Your task to perform on an android device: turn pop-ups on in chrome Image 0: 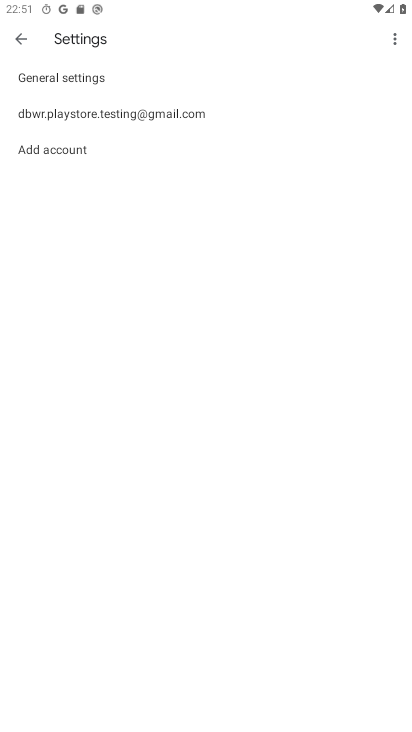
Step 0: press home button
Your task to perform on an android device: turn pop-ups on in chrome Image 1: 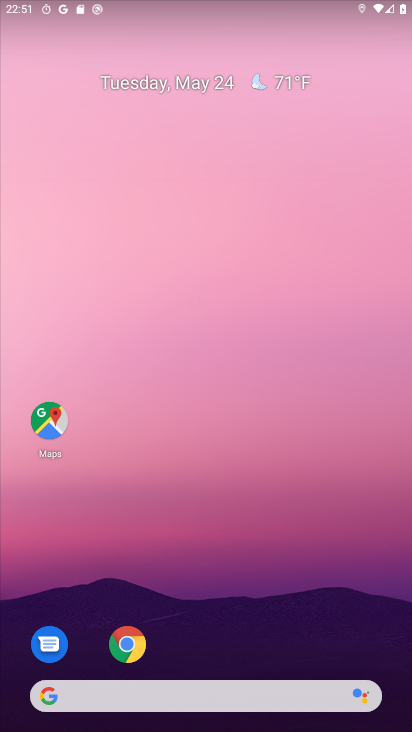
Step 1: click (129, 646)
Your task to perform on an android device: turn pop-ups on in chrome Image 2: 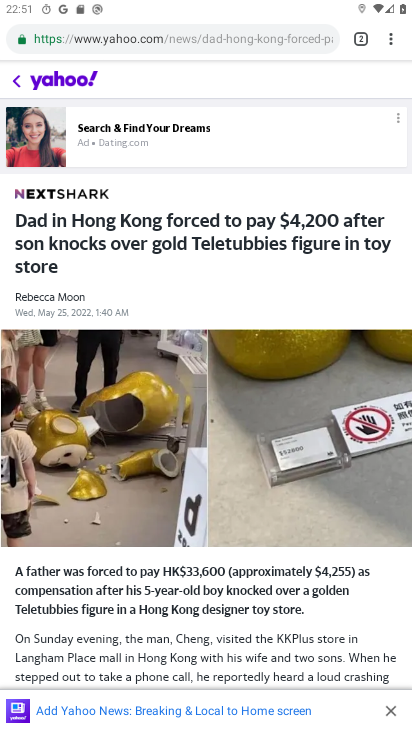
Step 2: click (393, 37)
Your task to perform on an android device: turn pop-ups on in chrome Image 3: 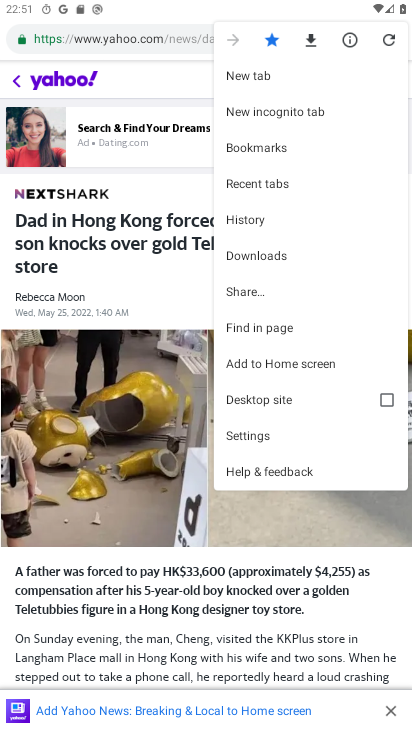
Step 3: click (252, 435)
Your task to perform on an android device: turn pop-ups on in chrome Image 4: 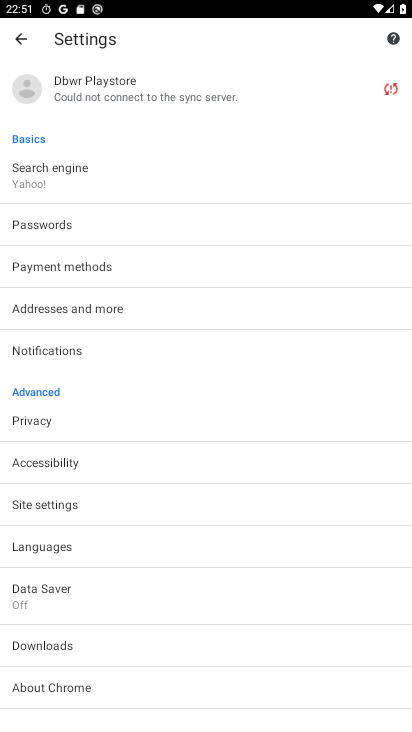
Step 4: drag from (191, 508) to (164, 96)
Your task to perform on an android device: turn pop-ups on in chrome Image 5: 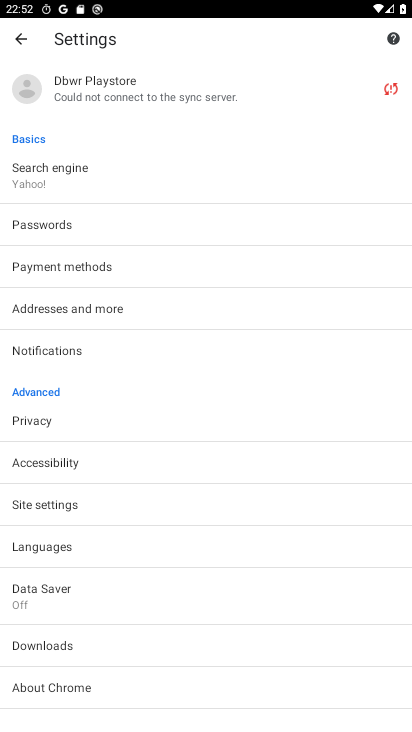
Step 5: click (49, 500)
Your task to perform on an android device: turn pop-ups on in chrome Image 6: 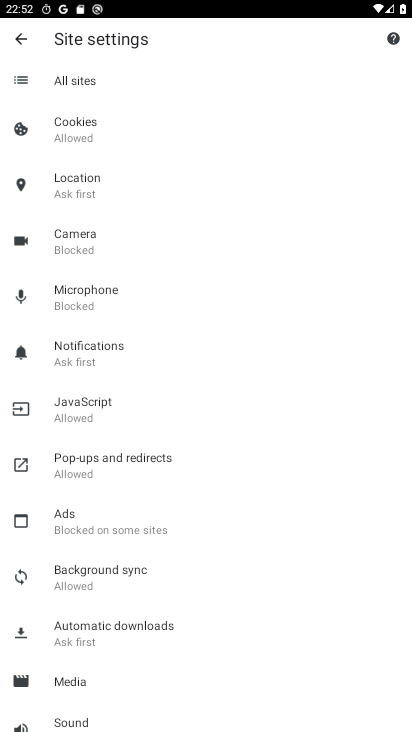
Step 6: click (79, 460)
Your task to perform on an android device: turn pop-ups on in chrome Image 7: 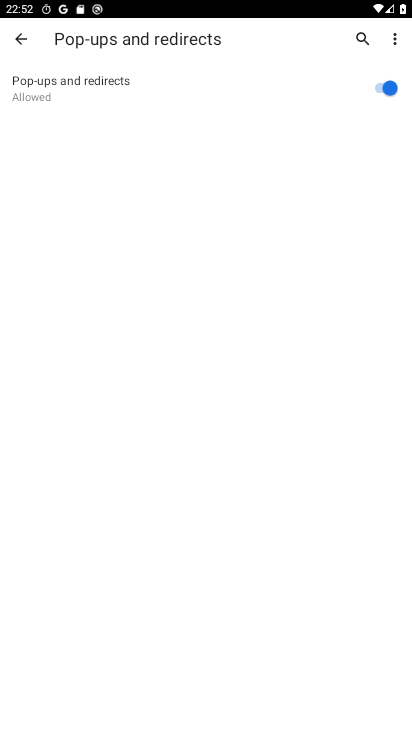
Step 7: task complete